Your task to perform on an android device: When is my next appointment? Image 0: 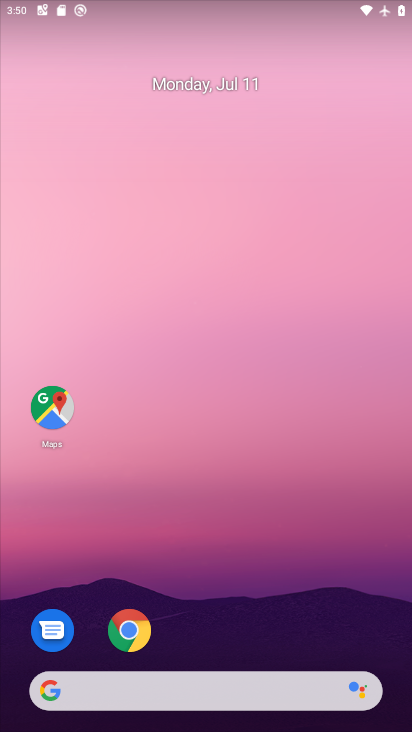
Step 0: drag from (299, 633) to (247, 137)
Your task to perform on an android device: When is my next appointment? Image 1: 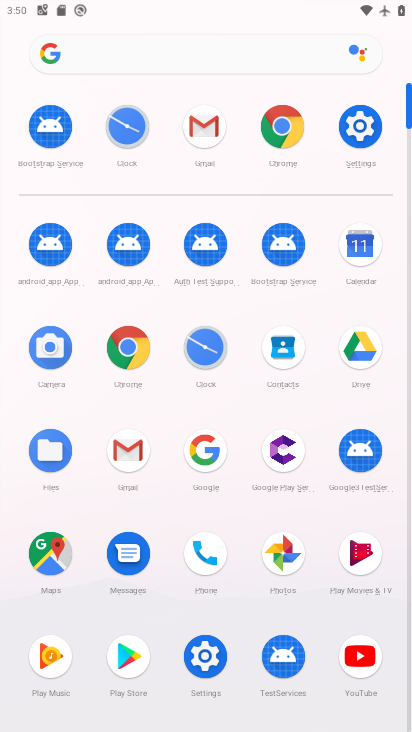
Step 1: press home button
Your task to perform on an android device: When is my next appointment? Image 2: 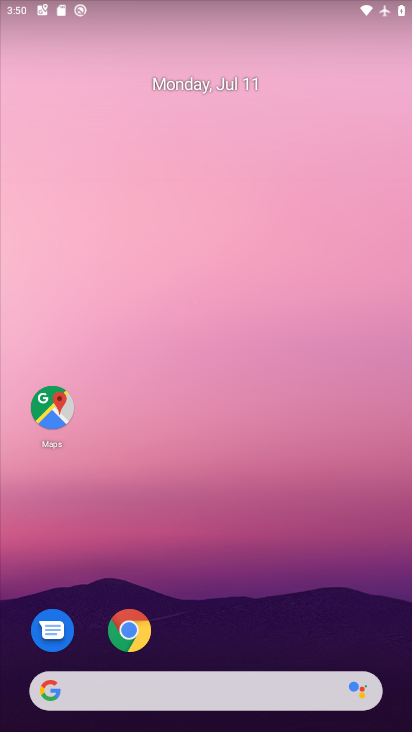
Step 2: drag from (283, 655) to (234, 252)
Your task to perform on an android device: When is my next appointment? Image 3: 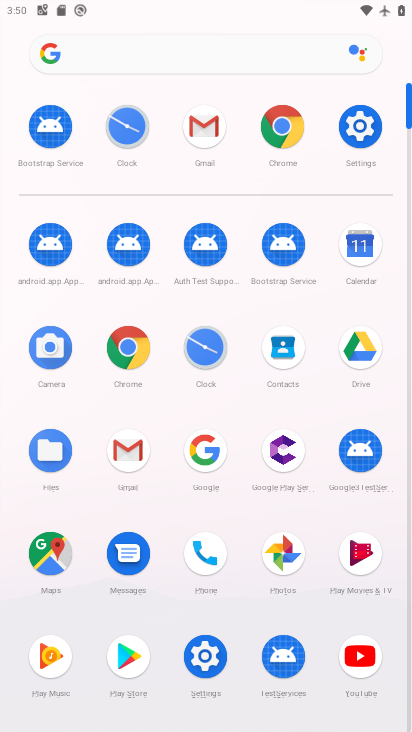
Step 3: click (344, 143)
Your task to perform on an android device: When is my next appointment? Image 4: 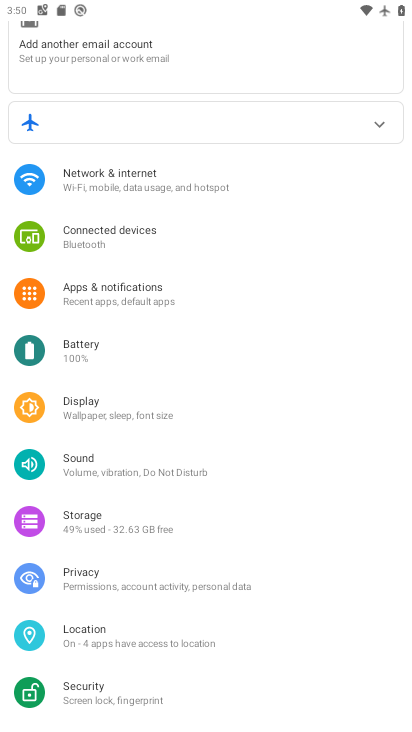
Step 4: drag from (208, 588) to (181, 241)
Your task to perform on an android device: When is my next appointment? Image 5: 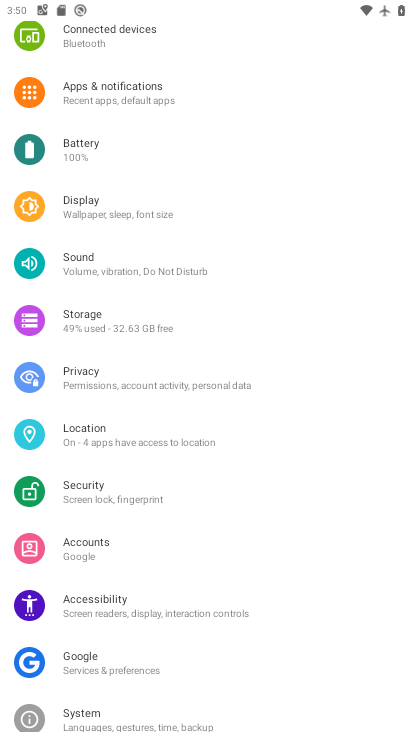
Step 5: drag from (265, 707) to (208, 461)
Your task to perform on an android device: When is my next appointment? Image 6: 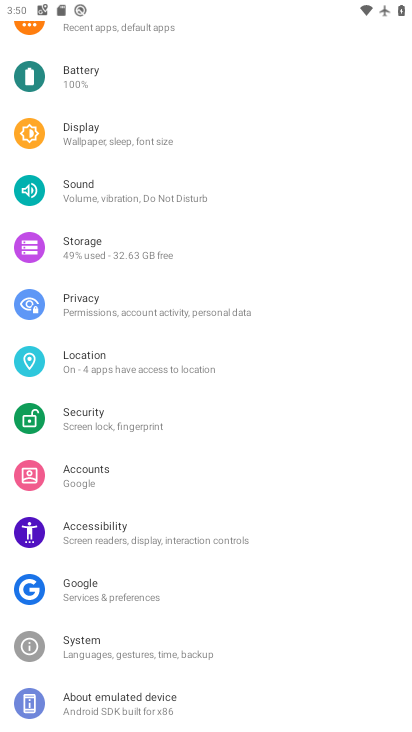
Step 6: press home button
Your task to perform on an android device: When is my next appointment? Image 7: 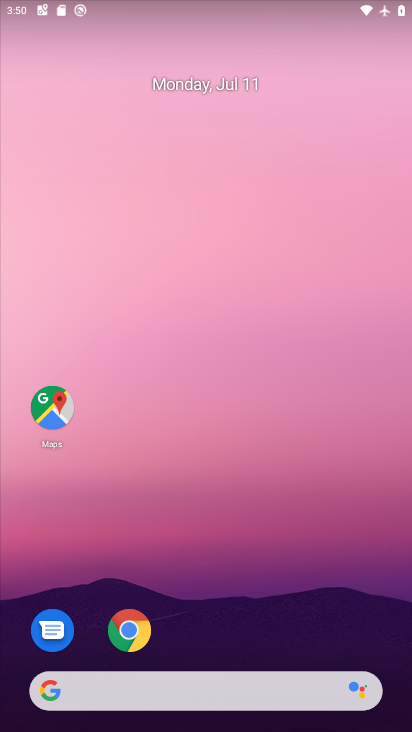
Step 7: drag from (275, 621) to (288, 57)
Your task to perform on an android device: When is my next appointment? Image 8: 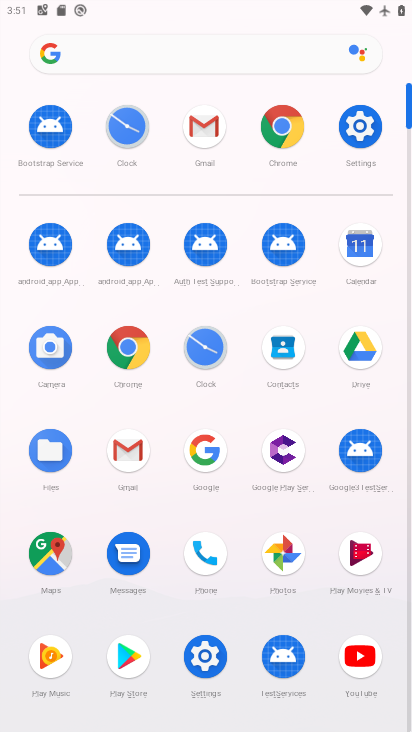
Step 8: click (344, 114)
Your task to perform on an android device: When is my next appointment? Image 9: 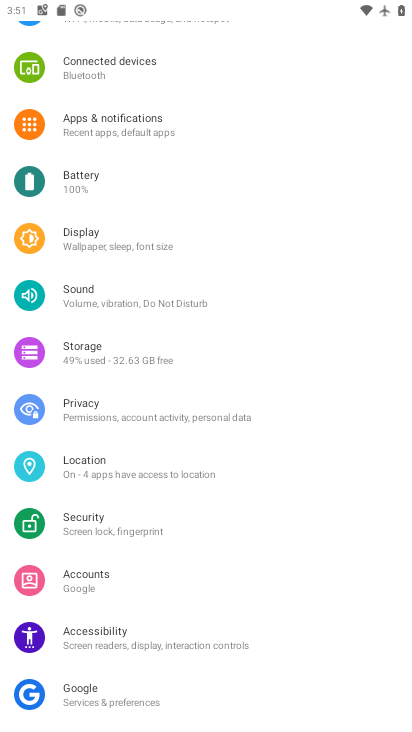
Step 9: task complete